Your task to perform on an android device: Show me popular games on the Play Store Image 0: 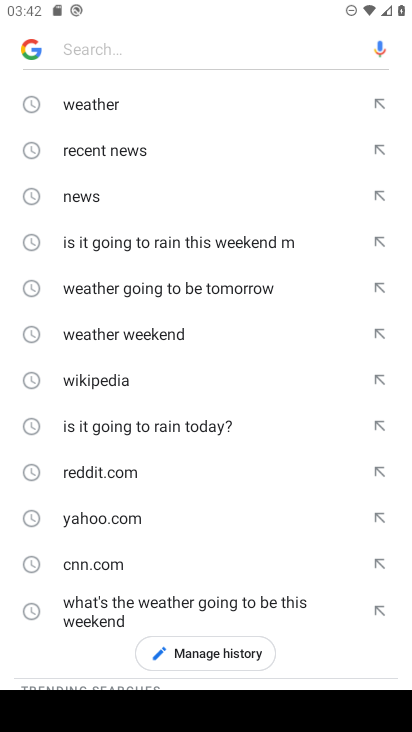
Step 0: press home button
Your task to perform on an android device: Show me popular games on the Play Store Image 1: 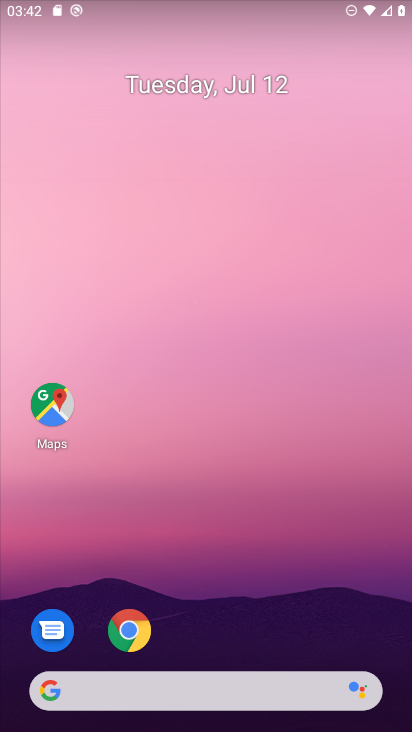
Step 1: drag from (240, 644) to (283, 91)
Your task to perform on an android device: Show me popular games on the Play Store Image 2: 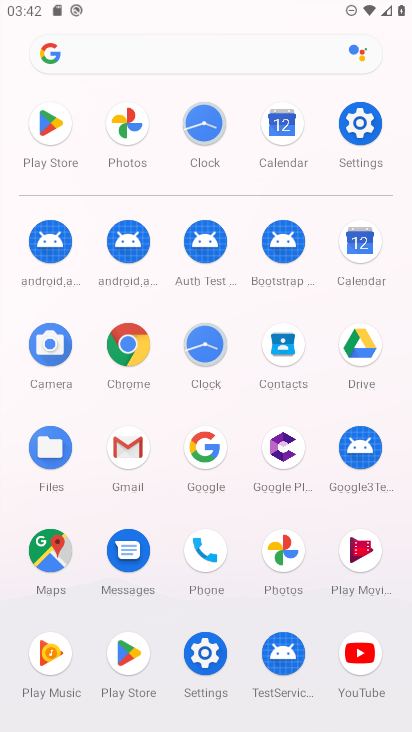
Step 2: click (131, 654)
Your task to perform on an android device: Show me popular games on the Play Store Image 3: 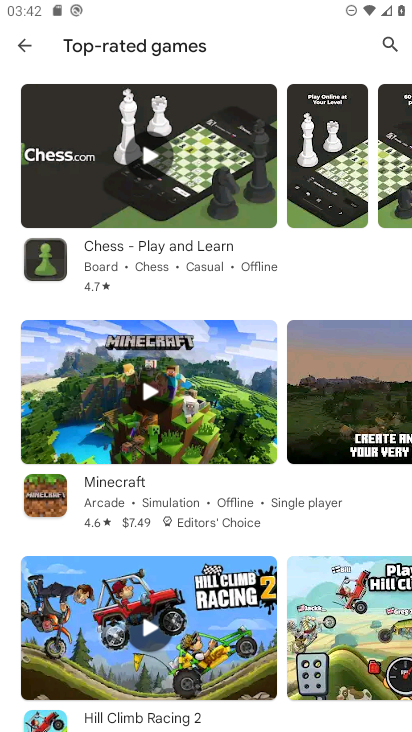
Step 3: task complete